Your task to perform on an android device: Open network settings Image 0: 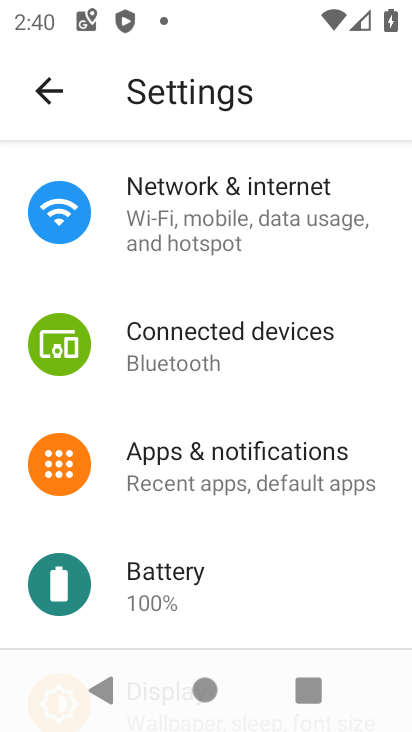
Step 0: press home button
Your task to perform on an android device: Open network settings Image 1: 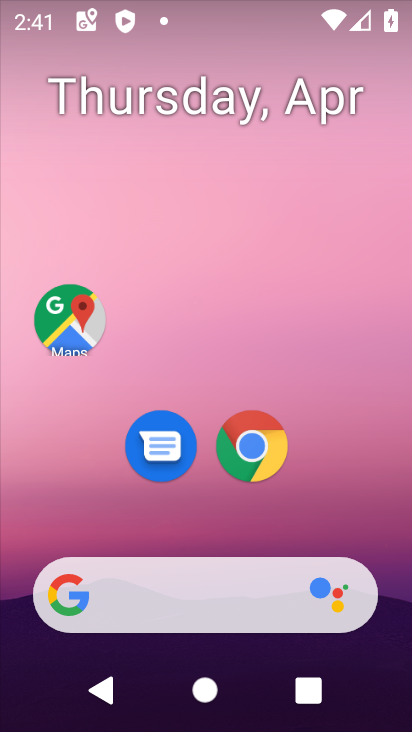
Step 1: drag from (282, 627) to (343, 141)
Your task to perform on an android device: Open network settings Image 2: 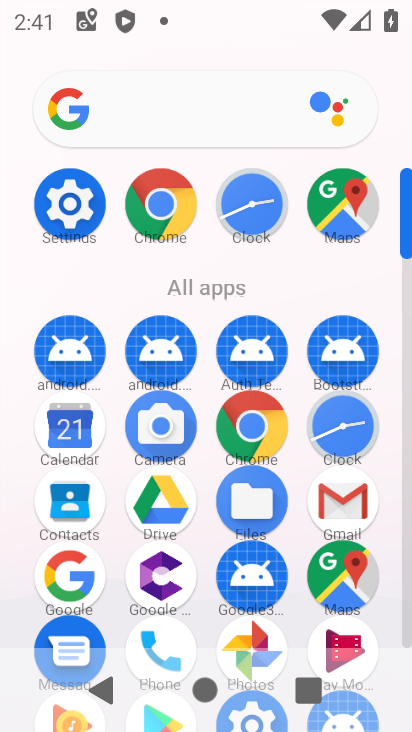
Step 2: click (78, 217)
Your task to perform on an android device: Open network settings Image 3: 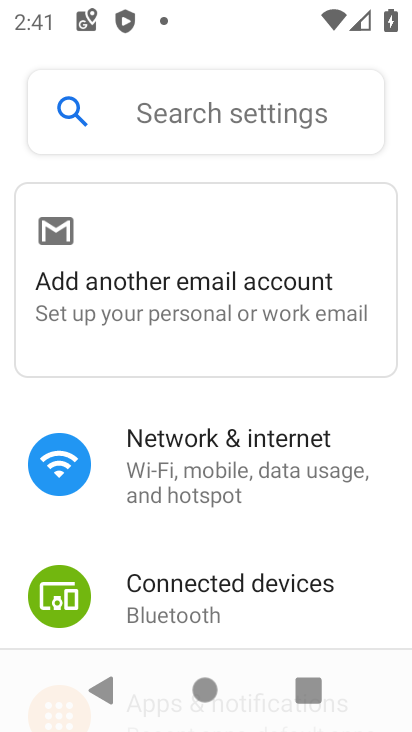
Step 3: click (184, 467)
Your task to perform on an android device: Open network settings Image 4: 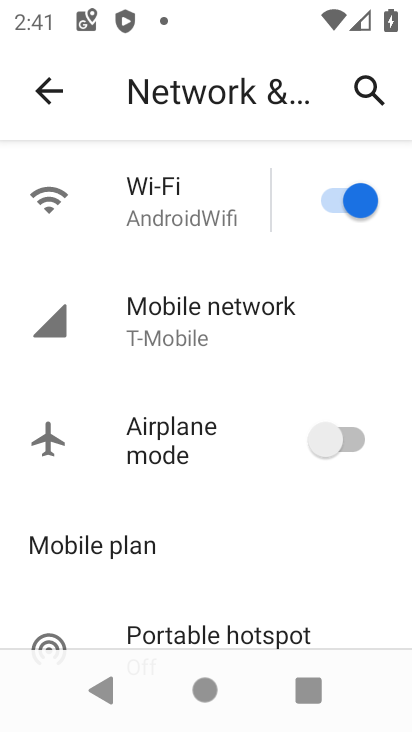
Step 4: click (191, 319)
Your task to perform on an android device: Open network settings Image 5: 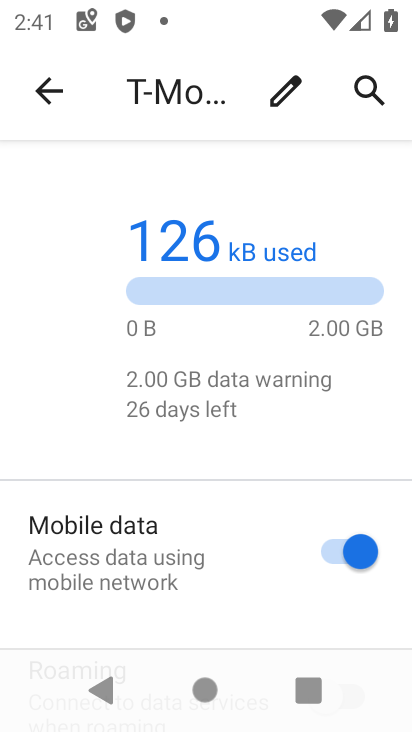
Step 5: task complete